Your task to perform on an android device: Set the phone to "Do not disturb". Image 0: 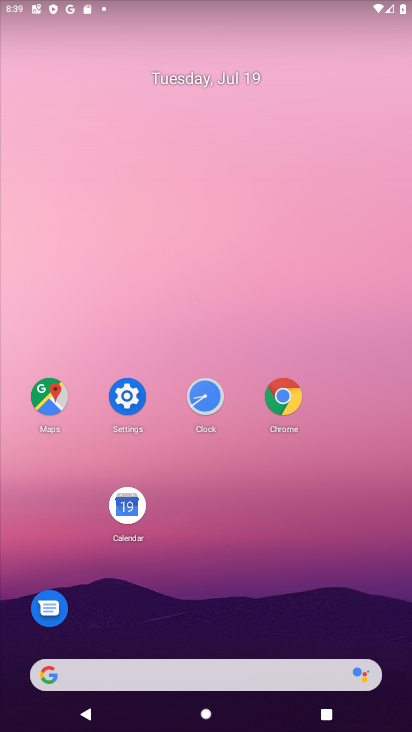
Step 0: click (134, 395)
Your task to perform on an android device: Set the phone to "Do not disturb". Image 1: 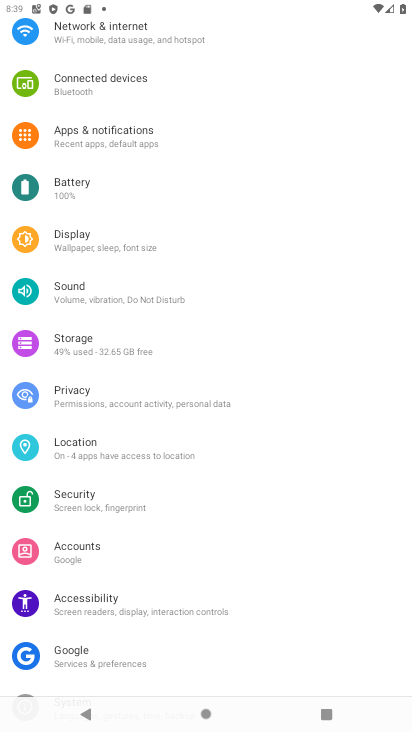
Step 1: click (53, 288)
Your task to perform on an android device: Set the phone to "Do not disturb". Image 2: 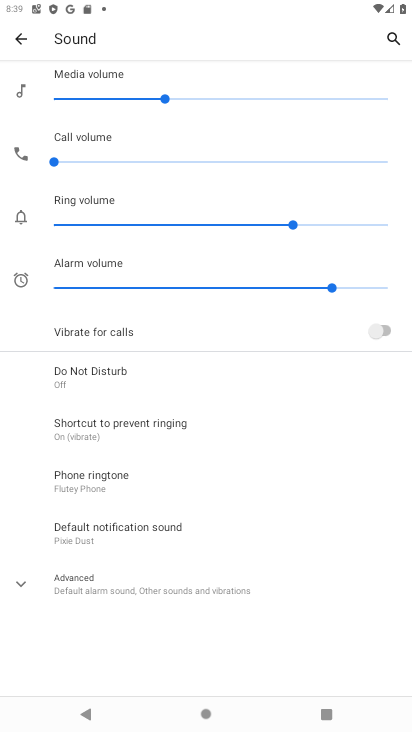
Step 2: click (78, 383)
Your task to perform on an android device: Set the phone to "Do not disturb". Image 3: 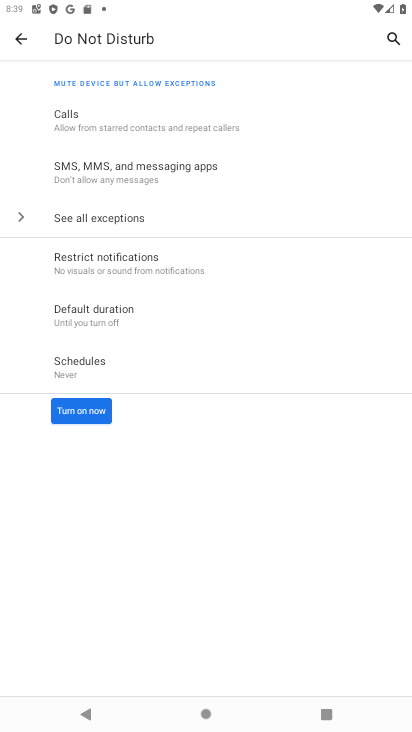
Step 3: click (76, 406)
Your task to perform on an android device: Set the phone to "Do not disturb". Image 4: 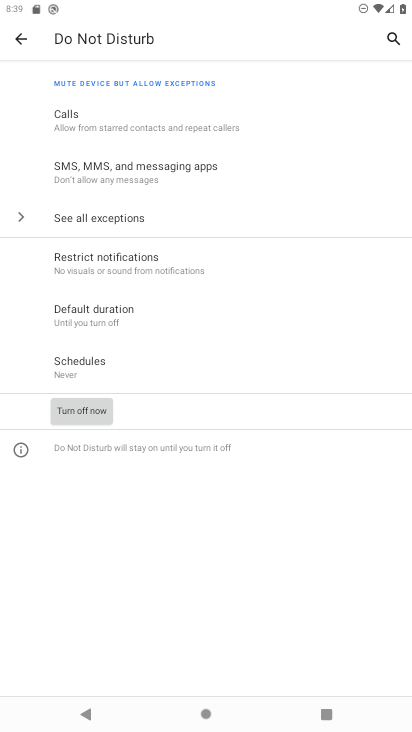
Step 4: click (78, 423)
Your task to perform on an android device: Set the phone to "Do not disturb". Image 5: 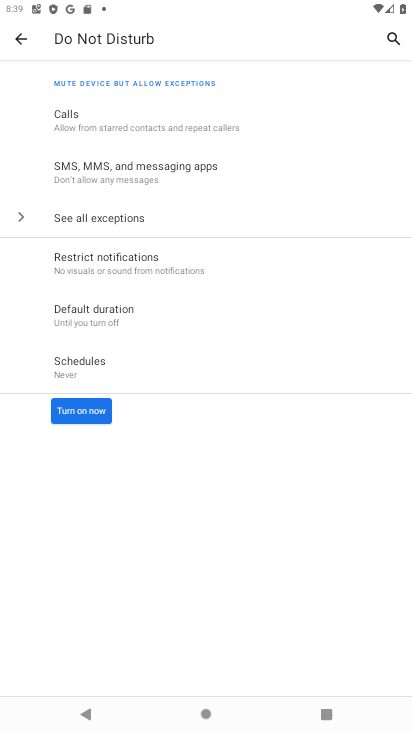
Step 5: task complete